Your task to perform on an android device: Open Google Chrome and open the bookmarks view Image 0: 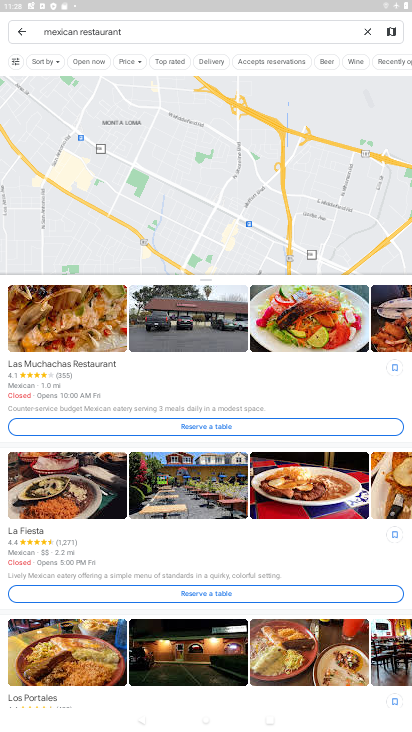
Step 0: press home button
Your task to perform on an android device: Open Google Chrome and open the bookmarks view Image 1: 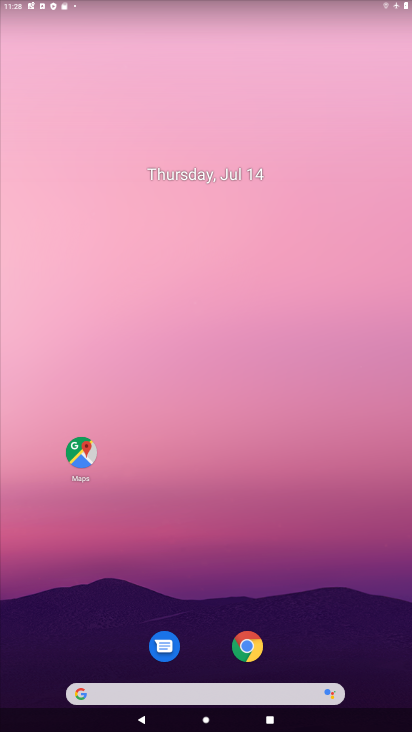
Step 1: click (247, 632)
Your task to perform on an android device: Open Google Chrome and open the bookmarks view Image 2: 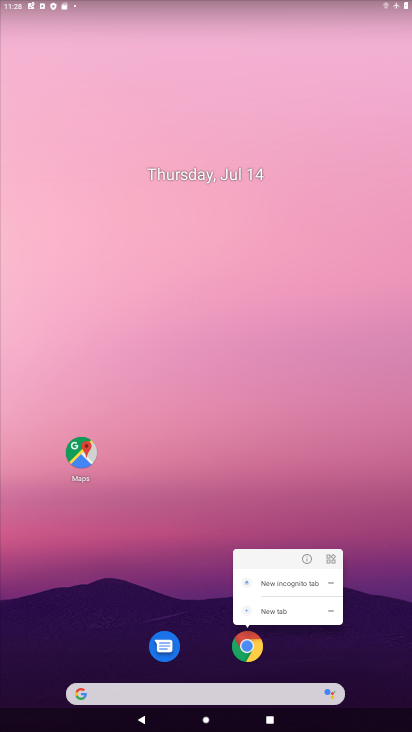
Step 2: click (260, 659)
Your task to perform on an android device: Open Google Chrome and open the bookmarks view Image 3: 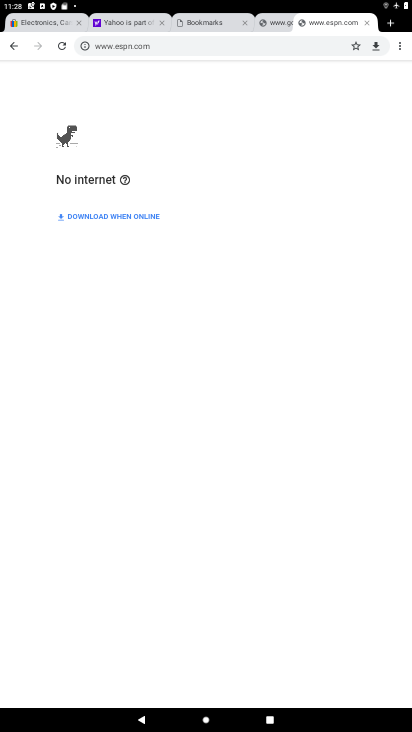
Step 3: click (397, 42)
Your task to perform on an android device: Open Google Chrome and open the bookmarks view Image 4: 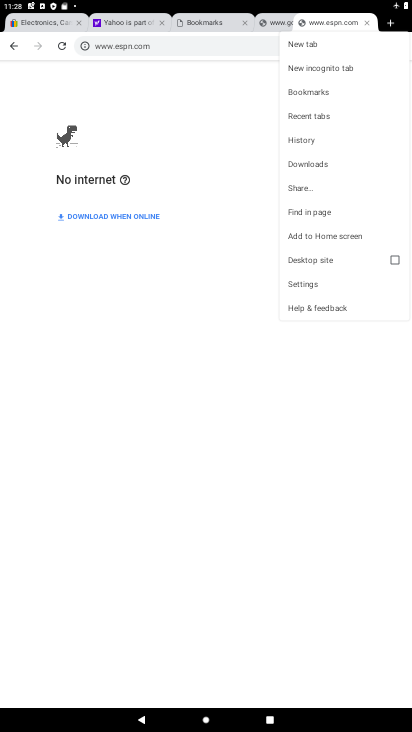
Step 4: click (316, 95)
Your task to perform on an android device: Open Google Chrome and open the bookmarks view Image 5: 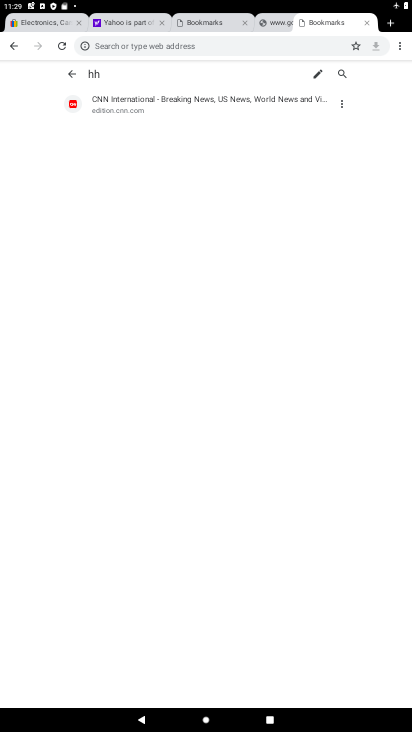
Step 5: task complete